Your task to perform on an android device: turn on improve location accuracy Image 0: 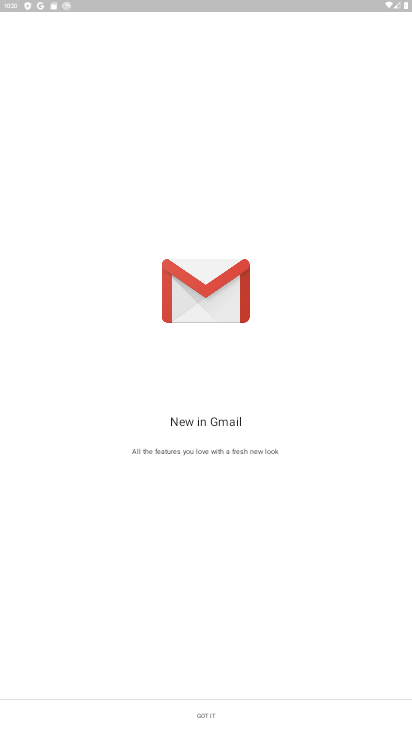
Step 0: press home button
Your task to perform on an android device: turn on improve location accuracy Image 1: 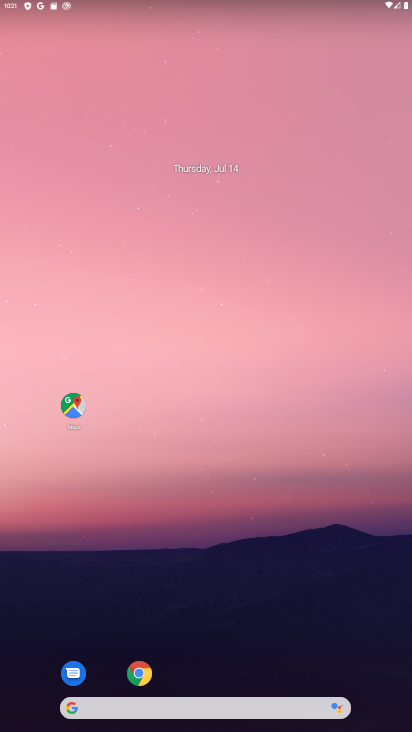
Step 1: drag from (235, 637) to (168, 0)
Your task to perform on an android device: turn on improve location accuracy Image 2: 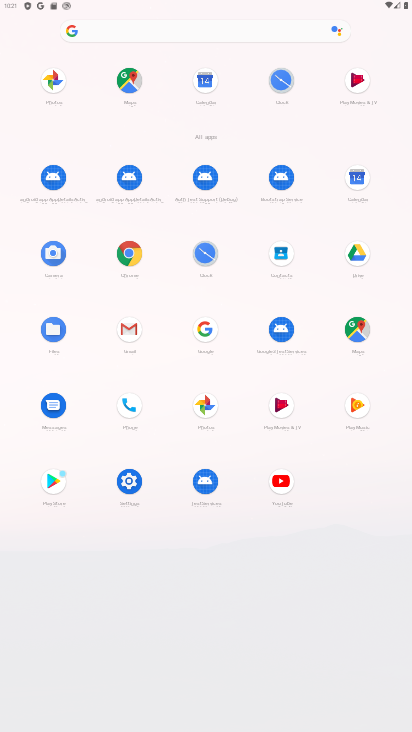
Step 2: click (125, 487)
Your task to perform on an android device: turn on improve location accuracy Image 3: 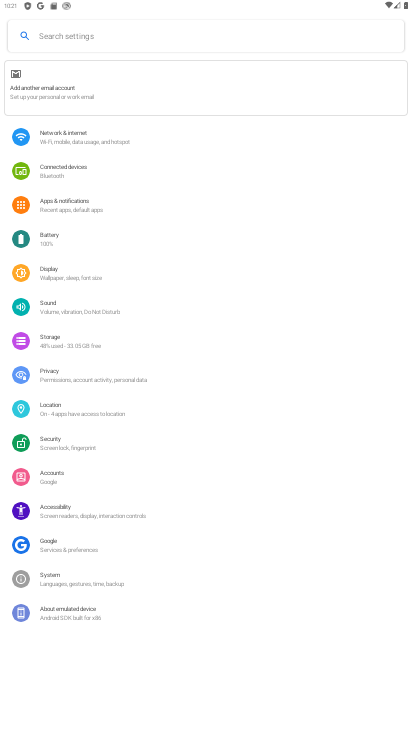
Step 3: click (74, 417)
Your task to perform on an android device: turn on improve location accuracy Image 4: 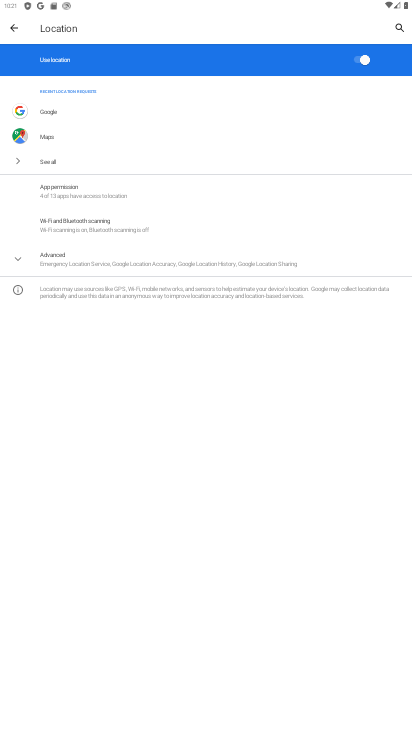
Step 4: click (89, 257)
Your task to perform on an android device: turn on improve location accuracy Image 5: 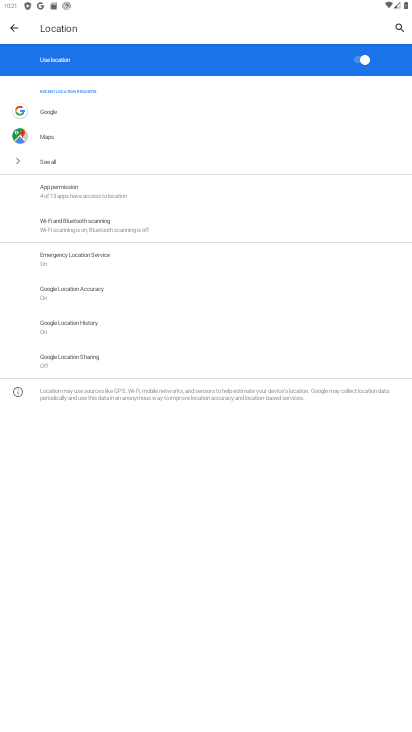
Step 5: click (98, 289)
Your task to perform on an android device: turn on improve location accuracy Image 6: 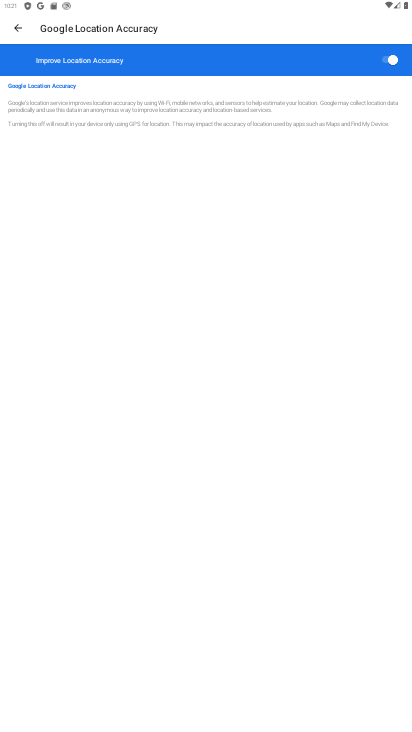
Step 6: click (401, 66)
Your task to perform on an android device: turn on improve location accuracy Image 7: 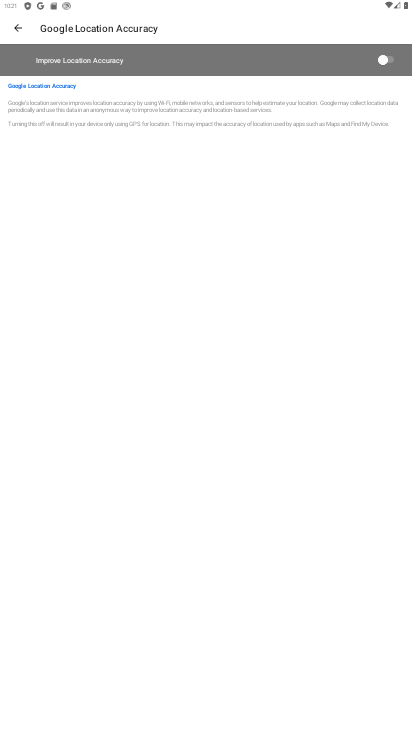
Step 7: click (401, 65)
Your task to perform on an android device: turn on improve location accuracy Image 8: 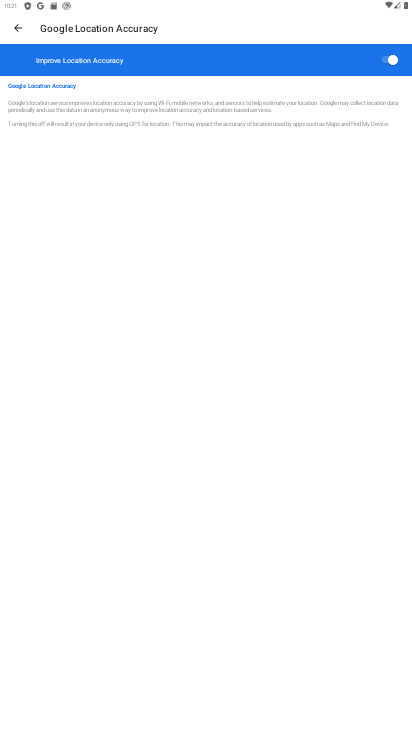
Step 8: task complete